Your task to perform on an android device: search for starred emails in the gmail app Image 0: 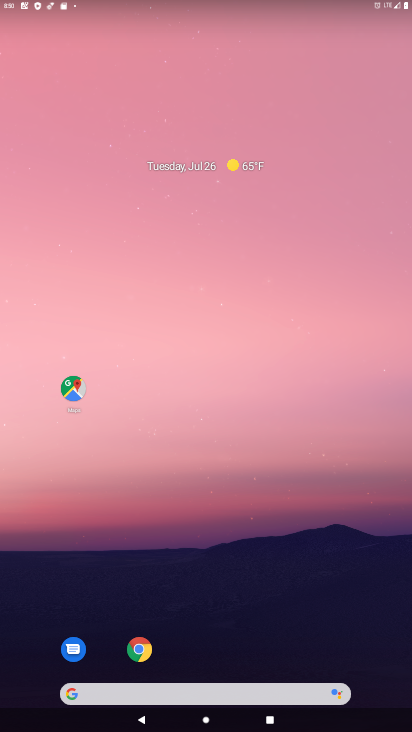
Step 0: drag from (191, 696) to (187, 91)
Your task to perform on an android device: search for starred emails in the gmail app Image 1: 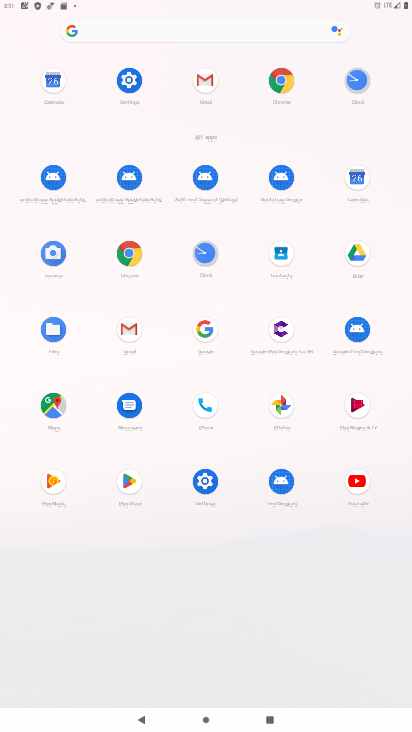
Step 1: click (201, 78)
Your task to perform on an android device: search for starred emails in the gmail app Image 2: 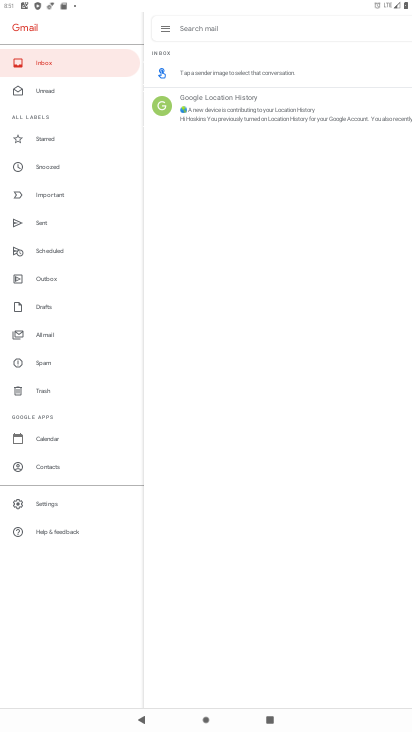
Step 2: click (241, 108)
Your task to perform on an android device: search for starred emails in the gmail app Image 3: 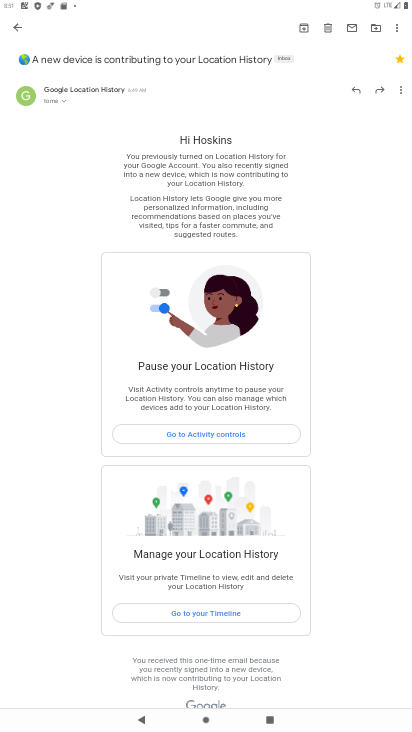
Step 3: task complete